Your task to perform on an android device: Find coffee shops on Maps Image 0: 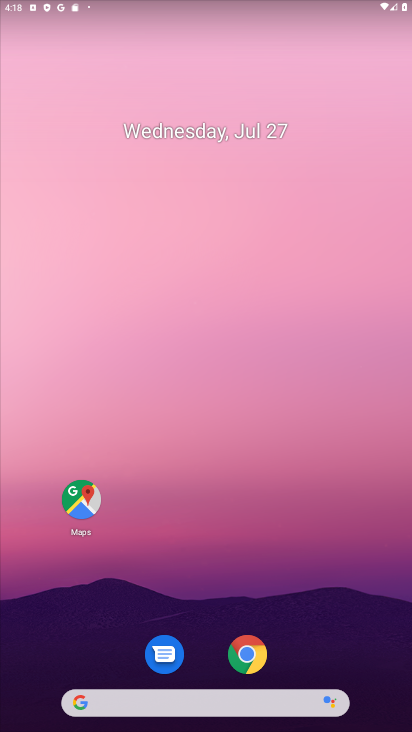
Step 0: click (81, 492)
Your task to perform on an android device: Find coffee shops on Maps Image 1: 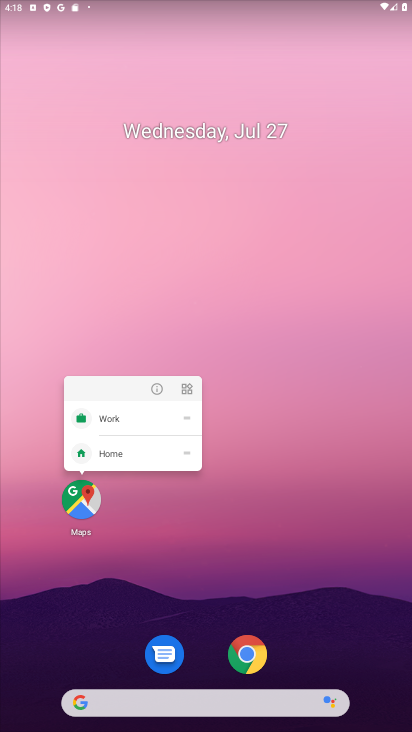
Step 1: click (80, 492)
Your task to perform on an android device: Find coffee shops on Maps Image 2: 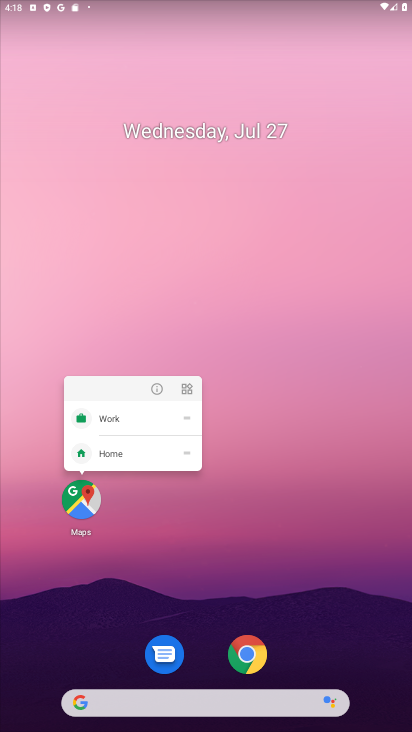
Step 2: click (69, 504)
Your task to perform on an android device: Find coffee shops on Maps Image 3: 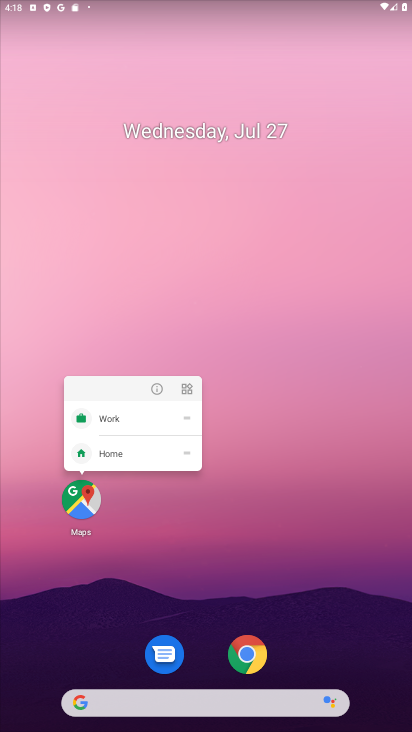
Step 3: click (70, 504)
Your task to perform on an android device: Find coffee shops on Maps Image 4: 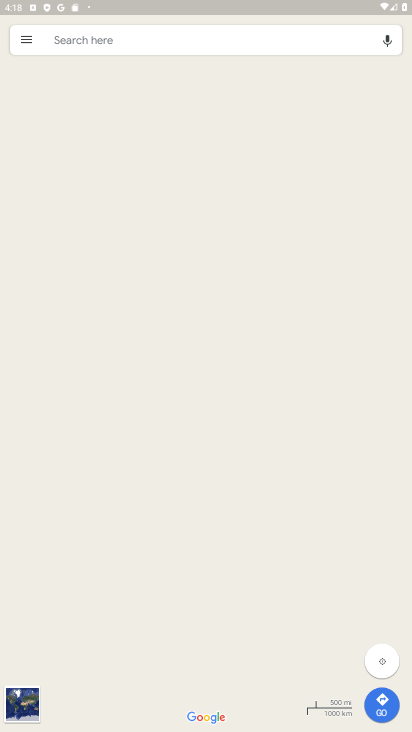
Step 4: click (146, 47)
Your task to perform on an android device: Find coffee shops on Maps Image 5: 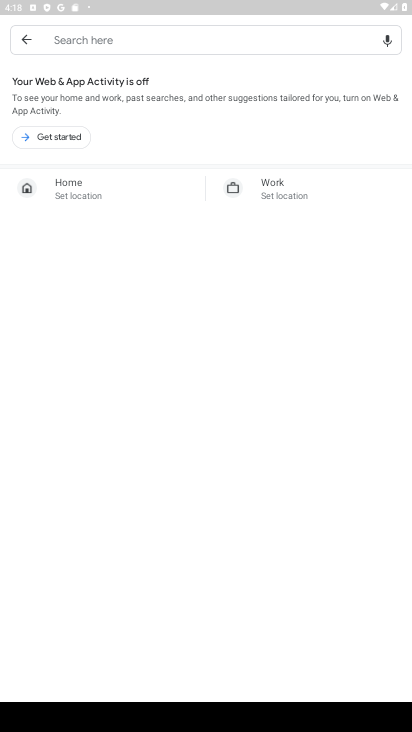
Step 5: click (88, 80)
Your task to perform on an android device: Find coffee shops on Maps Image 6: 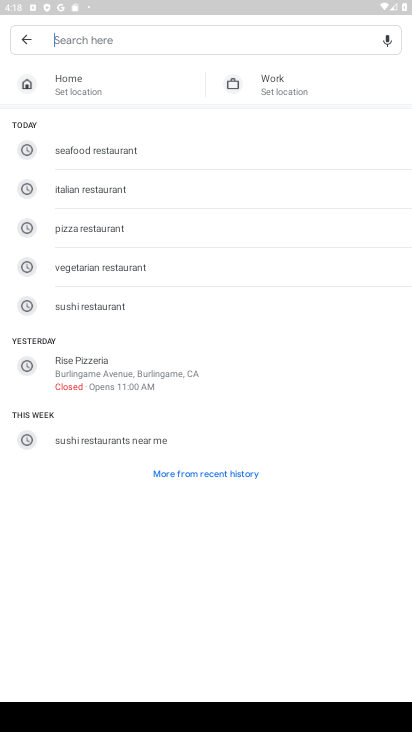
Step 6: type "coffee shops"
Your task to perform on an android device: Find coffee shops on Maps Image 7: 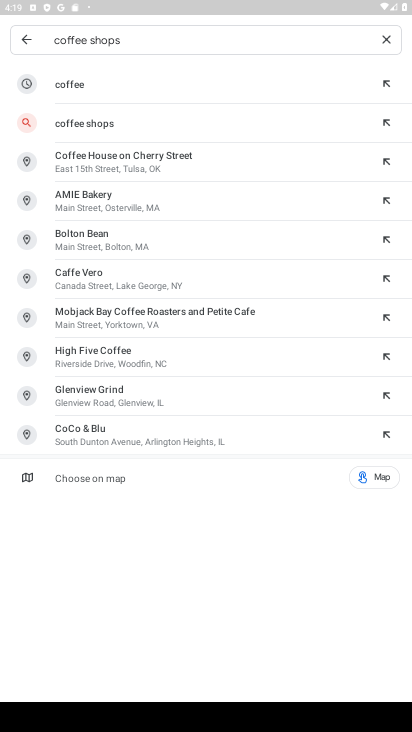
Step 7: click (115, 128)
Your task to perform on an android device: Find coffee shops on Maps Image 8: 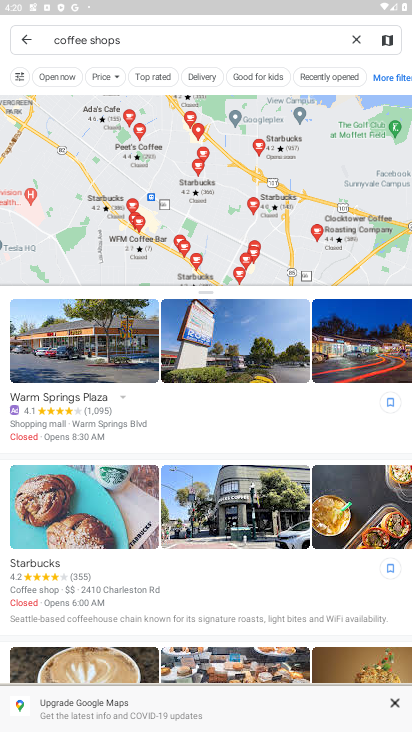
Step 8: task complete